Your task to perform on an android device: turn on improve location accuracy Image 0: 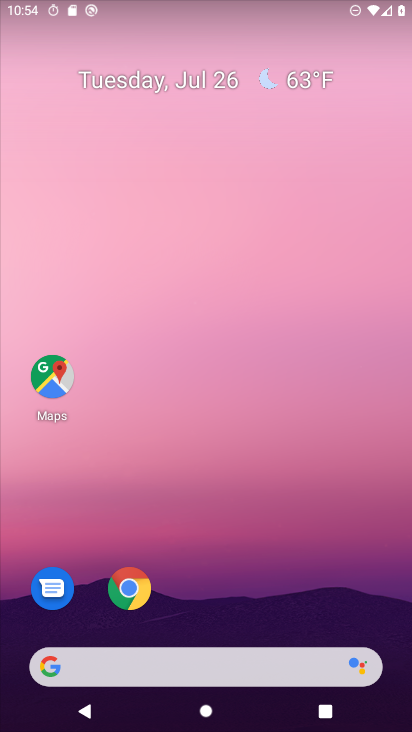
Step 0: drag from (255, 637) to (192, 8)
Your task to perform on an android device: turn on improve location accuracy Image 1: 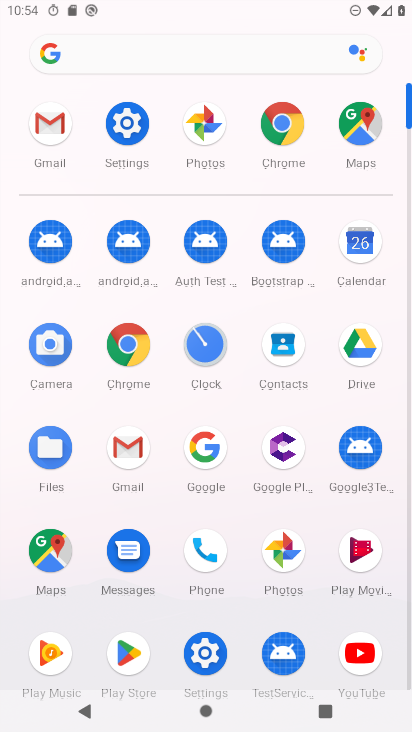
Step 1: click (140, 135)
Your task to perform on an android device: turn on improve location accuracy Image 2: 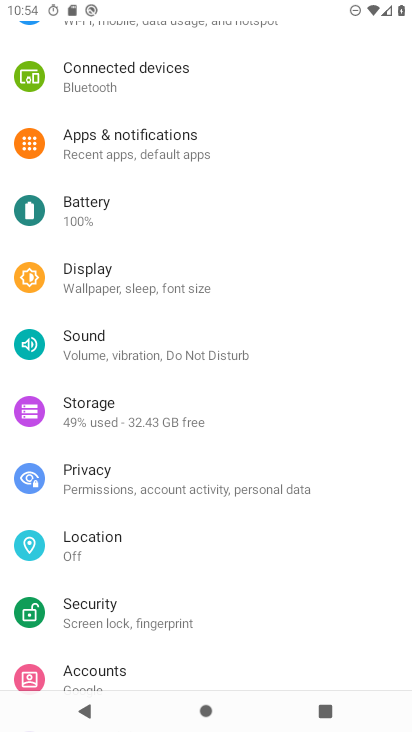
Step 2: click (135, 533)
Your task to perform on an android device: turn on improve location accuracy Image 3: 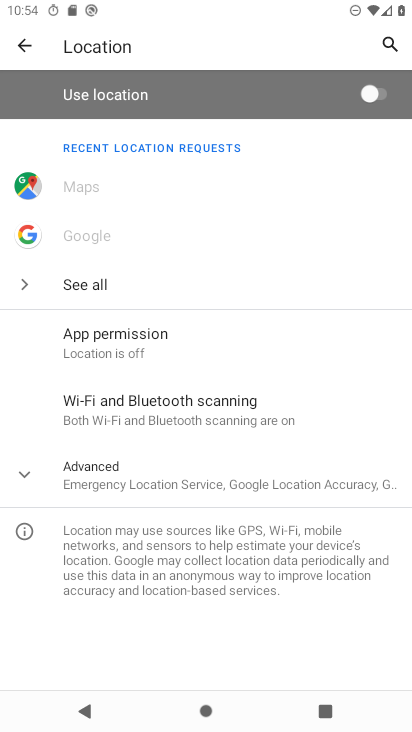
Step 3: click (99, 493)
Your task to perform on an android device: turn on improve location accuracy Image 4: 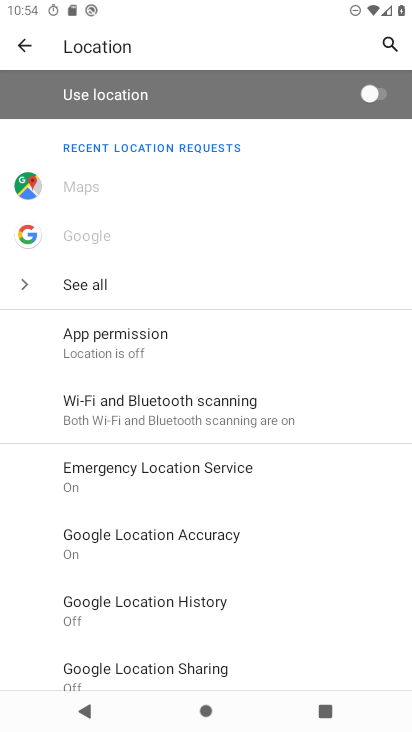
Step 4: click (97, 540)
Your task to perform on an android device: turn on improve location accuracy Image 5: 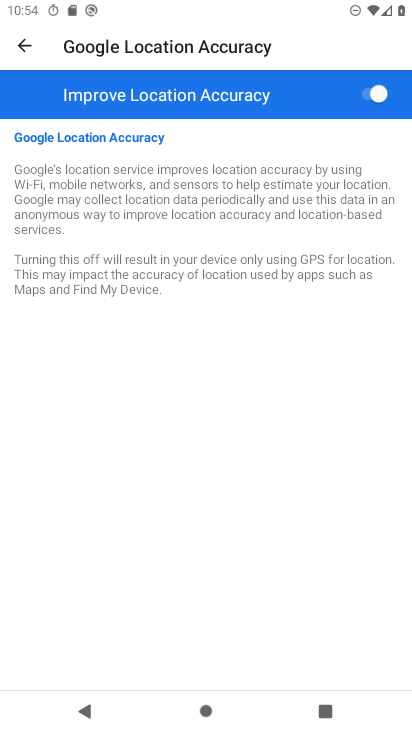
Step 5: task complete